Your task to perform on an android device: Open Reddit.com Image 0: 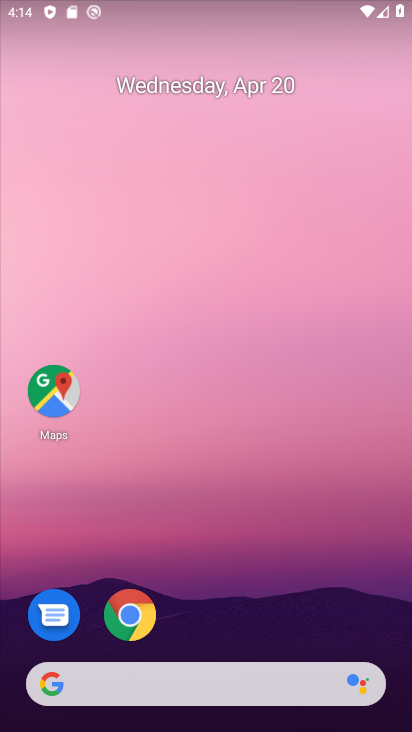
Step 0: click (139, 603)
Your task to perform on an android device: Open Reddit.com Image 1: 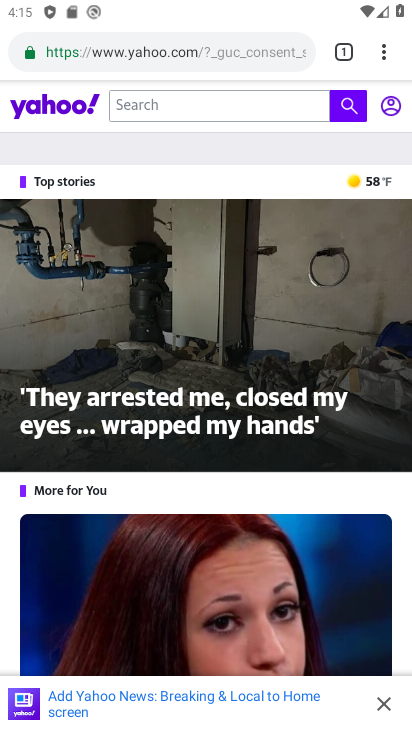
Step 1: click (341, 48)
Your task to perform on an android device: Open Reddit.com Image 2: 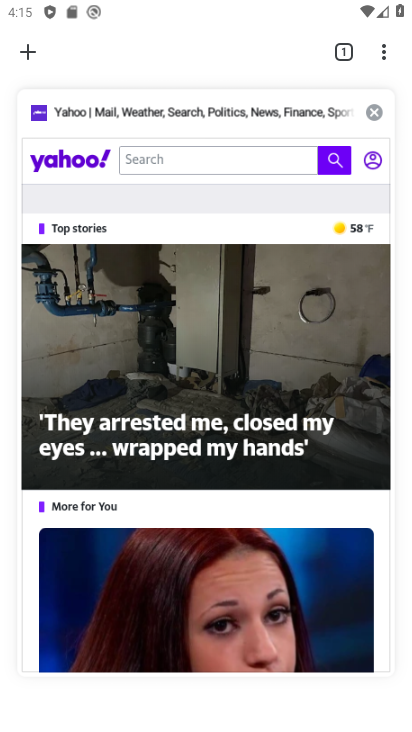
Step 2: click (29, 51)
Your task to perform on an android device: Open Reddit.com Image 3: 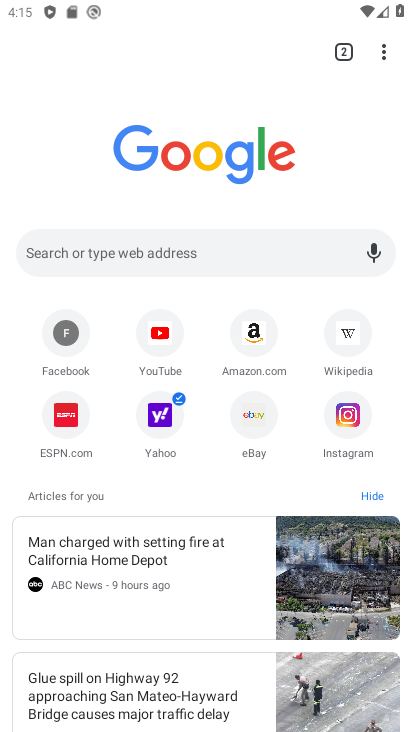
Step 3: click (156, 247)
Your task to perform on an android device: Open Reddit.com Image 4: 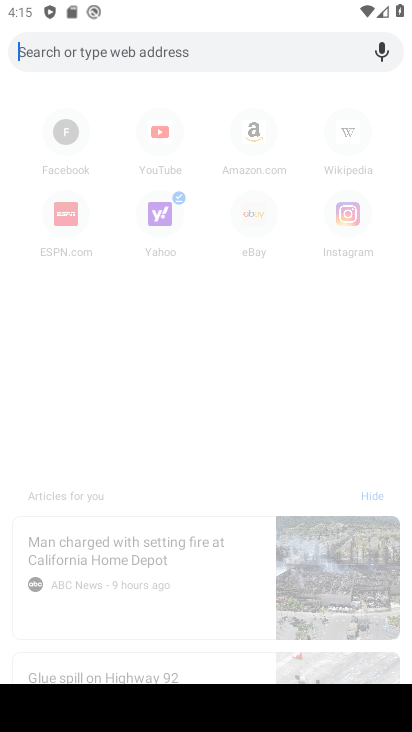
Step 4: type "reddit.com"
Your task to perform on an android device: Open Reddit.com Image 5: 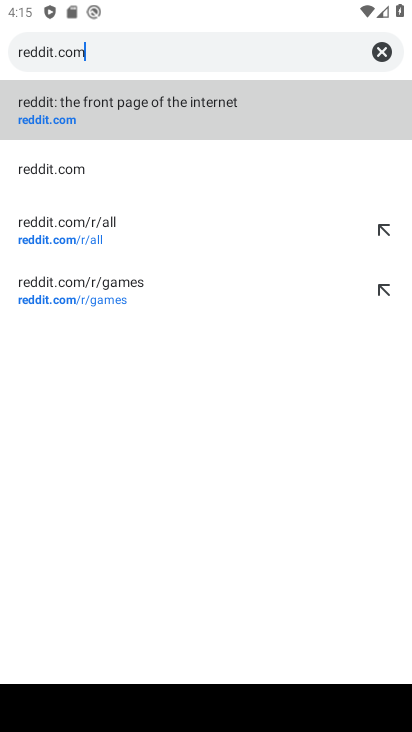
Step 5: click (119, 164)
Your task to perform on an android device: Open Reddit.com Image 6: 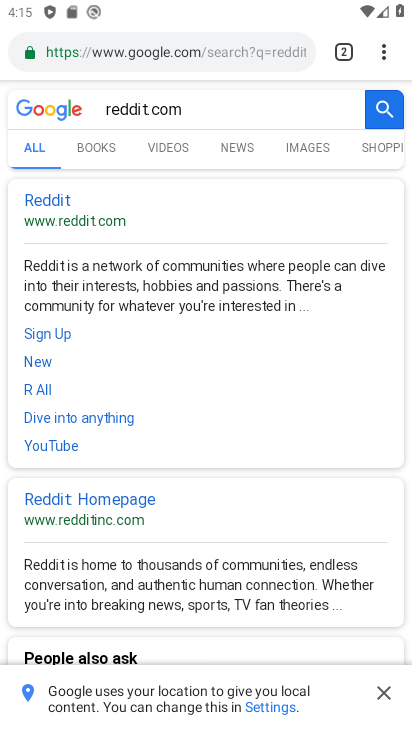
Step 6: task complete